Your task to perform on an android device: check storage Image 0: 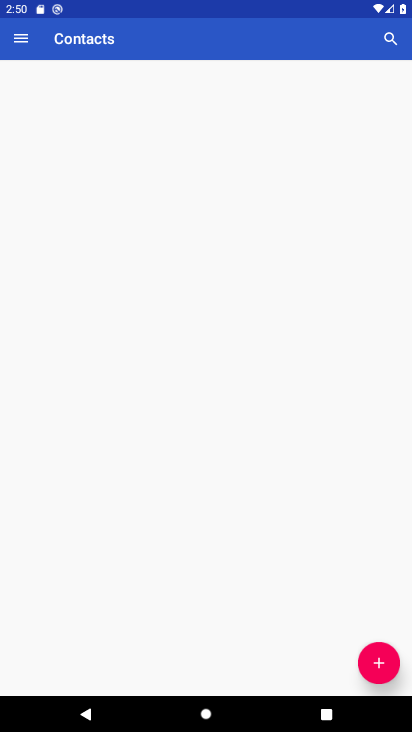
Step 0: press home button
Your task to perform on an android device: check storage Image 1: 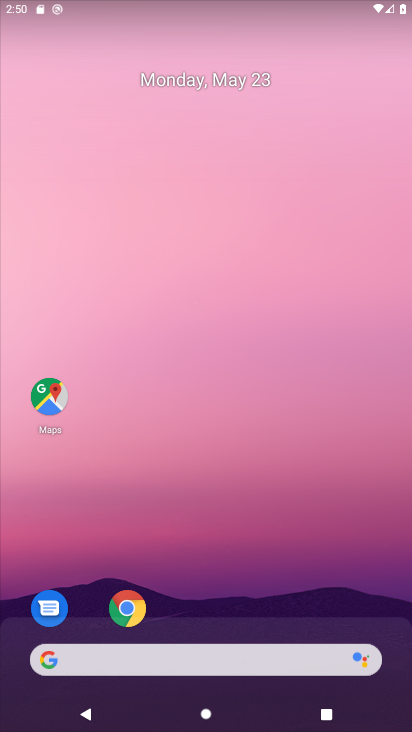
Step 1: drag from (234, 604) to (234, 0)
Your task to perform on an android device: check storage Image 2: 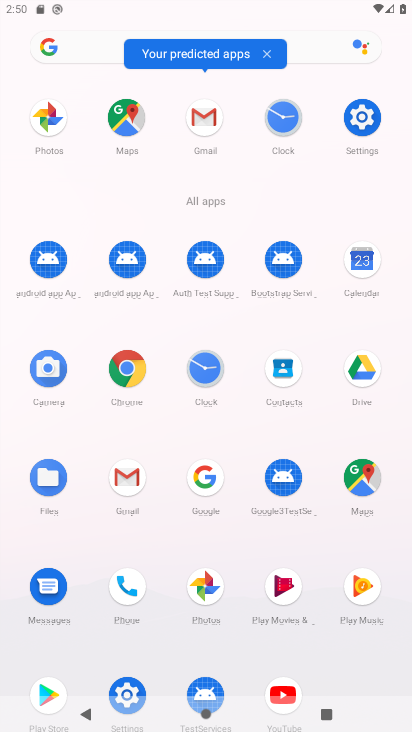
Step 2: click (370, 120)
Your task to perform on an android device: check storage Image 3: 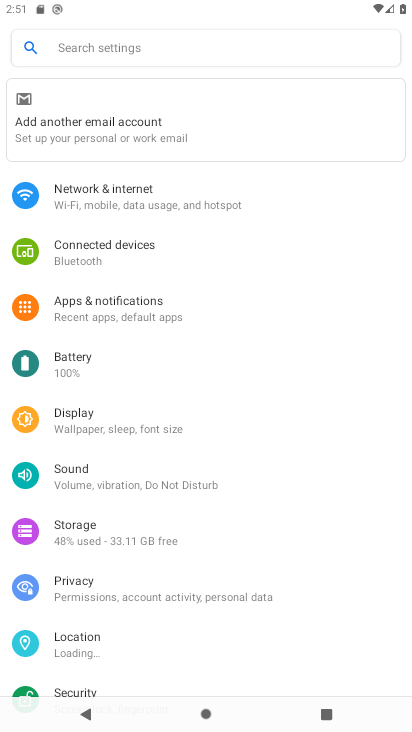
Step 3: click (224, 531)
Your task to perform on an android device: check storage Image 4: 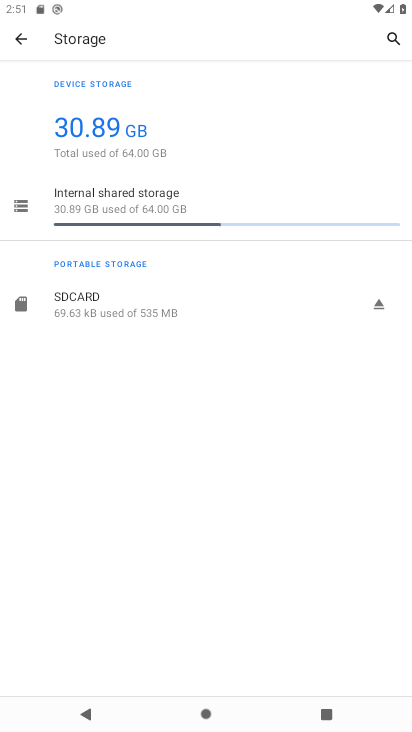
Step 4: task complete